Your task to perform on an android device: find snoozed emails in the gmail app Image 0: 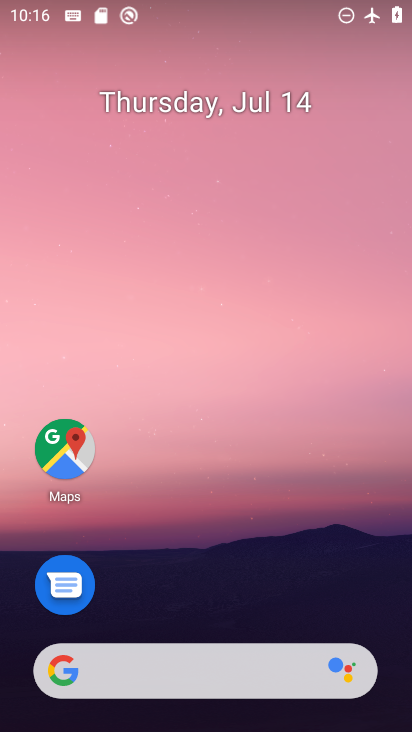
Step 0: drag from (229, 629) to (165, 24)
Your task to perform on an android device: find snoozed emails in the gmail app Image 1: 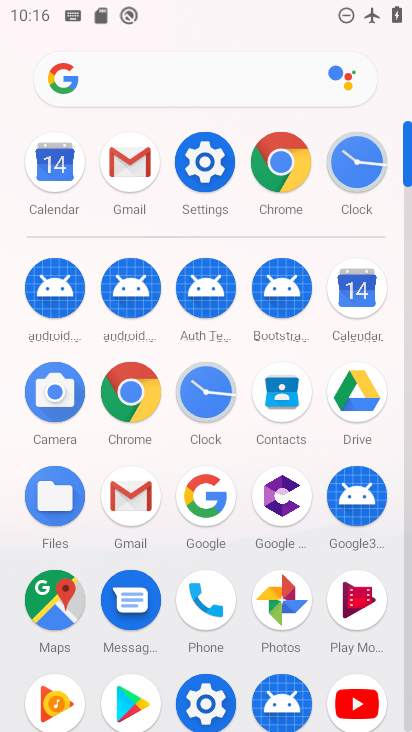
Step 1: click (131, 508)
Your task to perform on an android device: find snoozed emails in the gmail app Image 2: 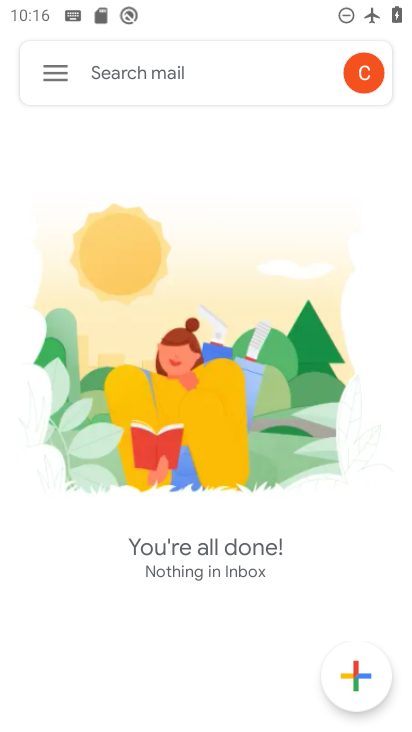
Step 2: click (52, 81)
Your task to perform on an android device: find snoozed emails in the gmail app Image 3: 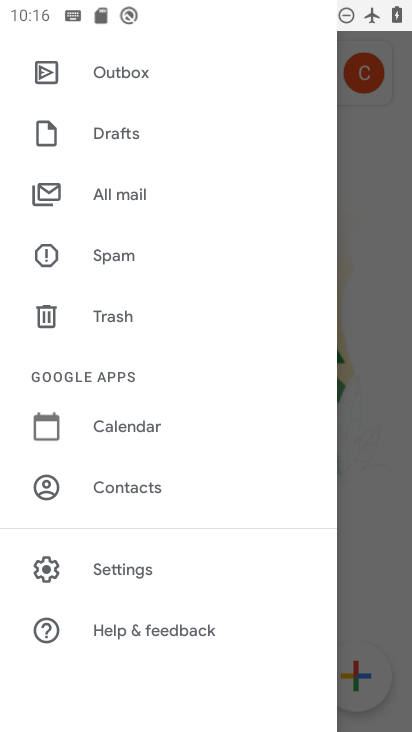
Step 3: drag from (154, 212) to (140, 590)
Your task to perform on an android device: find snoozed emails in the gmail app Image 4: 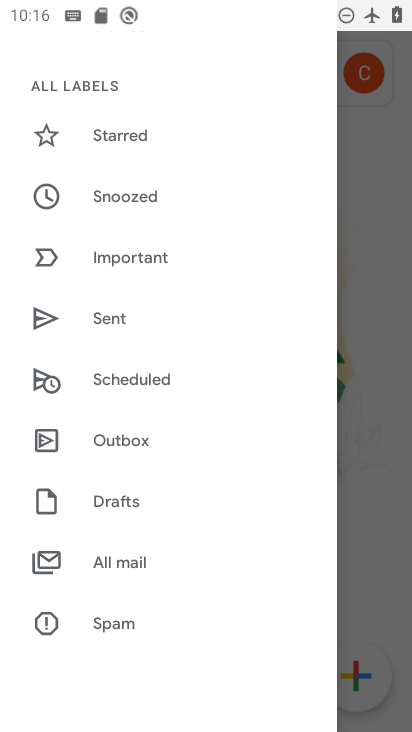
Step 4: click (121, 190)
Your task to perform on an android device: find snoozed emails in the gmail app Image 5: 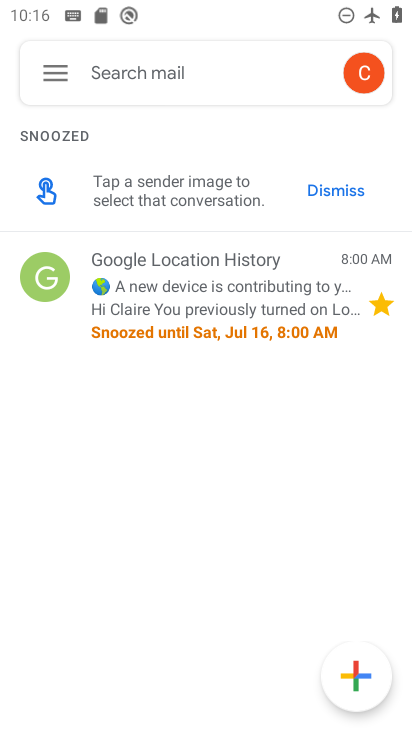
Step 5: task complete